Your task to perform on an android device: read, delete, or share a saved page in the chrome app Image 0: 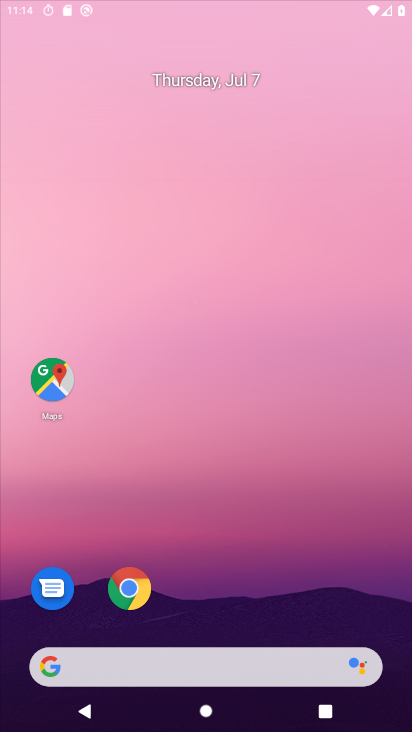
Step 0: press home button
Your task to perform on an android device: read, delete, or share a saved page in the chrome app Image 1: 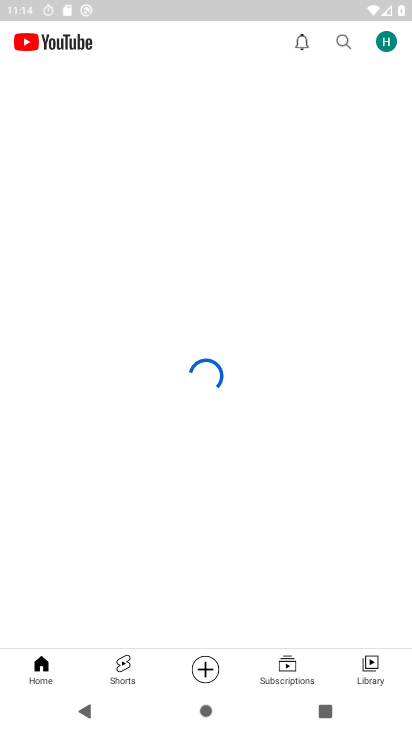
Step 1: click (129, 589)
Your task to perform on an android device: read, delete, or share a saved page in the chrome app Image 2: 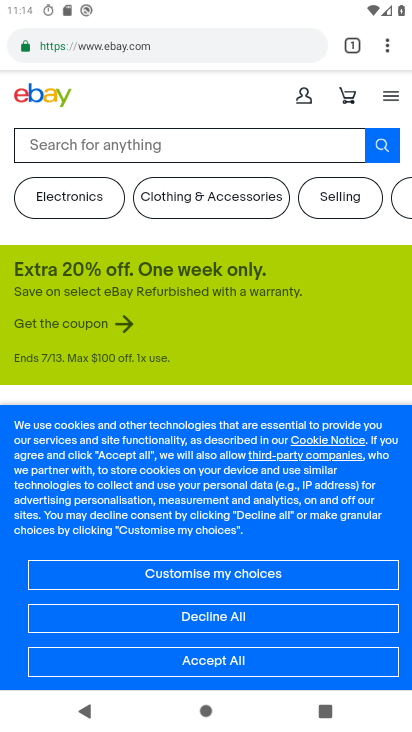
Step 2: press home button
Your task to perform on an android device: read, delete, or share a saved page in the chrome app Image 3: 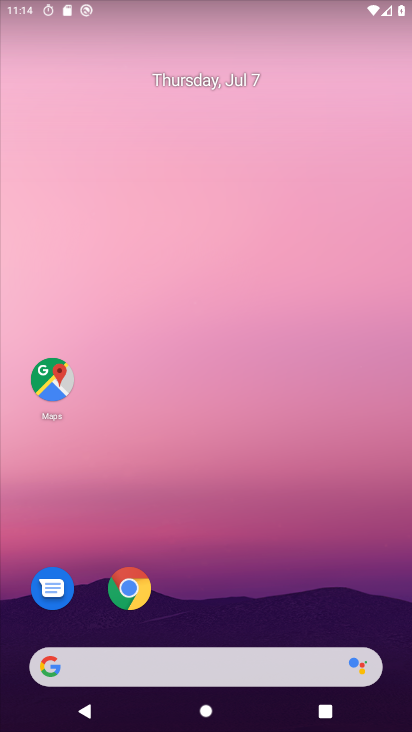
Step 3: click (129, 586)
Your task to perform on an android device: read, delete, or share a saved page in the chrome app Image 4: 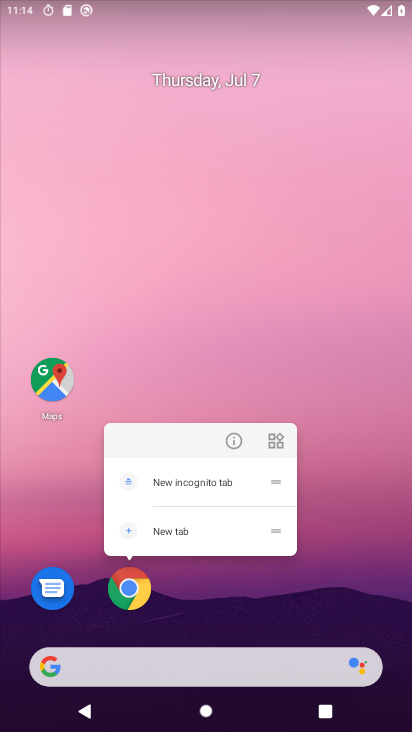
Step 4: click (135, 584)
Your task to perform on an android device: read, delete, or share a saved page in the chrome app Image 5: 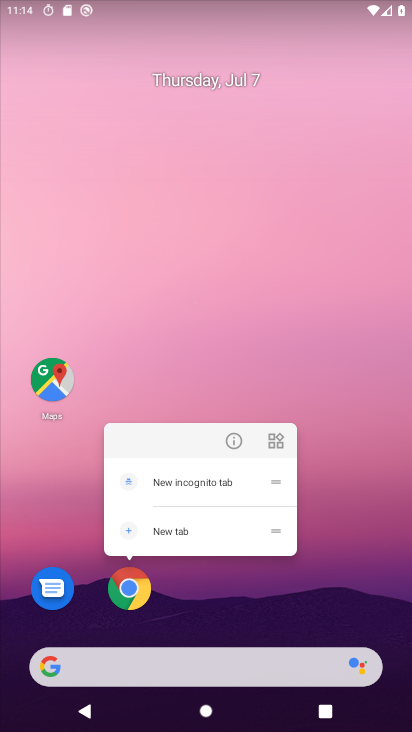
Step 5: click (132, 595)
Your task to perform on an android device: read, delete, or share a saved page in the chrome app Image 6: 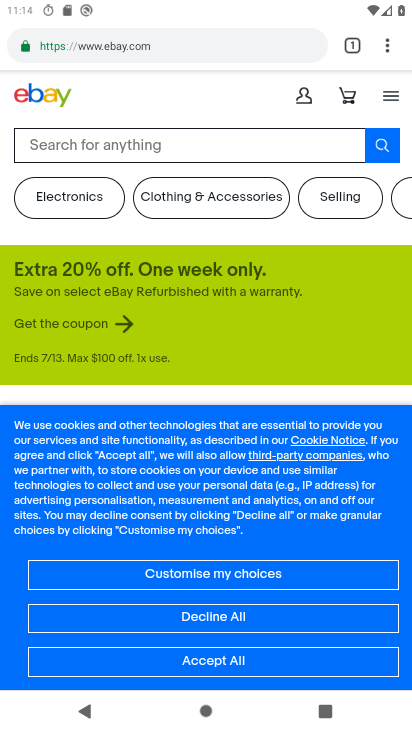
Step 6: drag from (387, 40) to (239, 305)
Your task to perform on an android device: read, delete, or share a saved page in the chrome app Image 7: 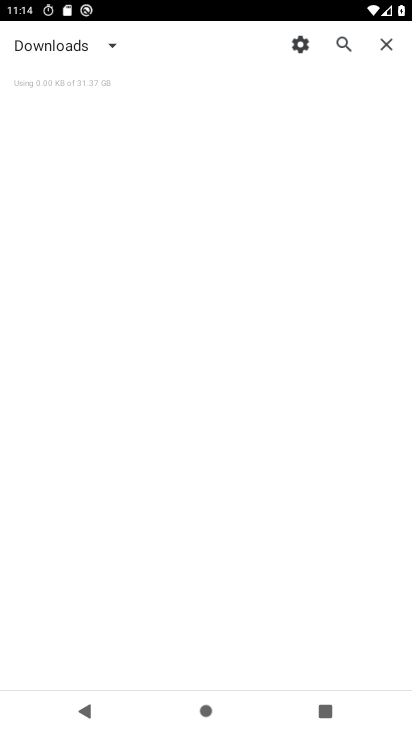
Step 7: click (83, 42)
Your task to perform on an android device: read, delete, or share a saved page in the chrome app Image 8: 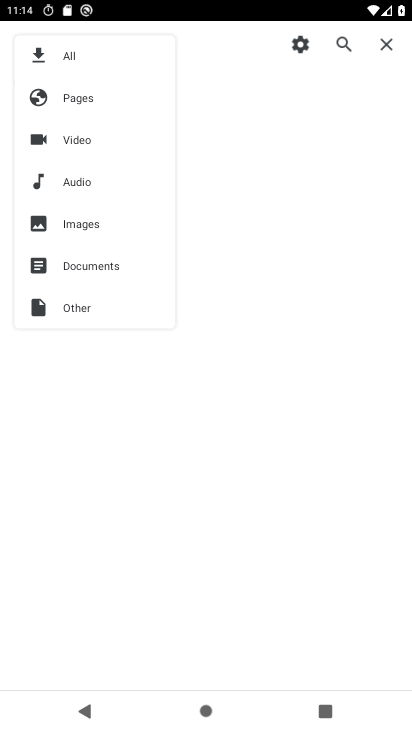
Step 8: click (78, 90)
Your task to perform on an android device: read, delete, or share a saved page in the chrome app Image 9: 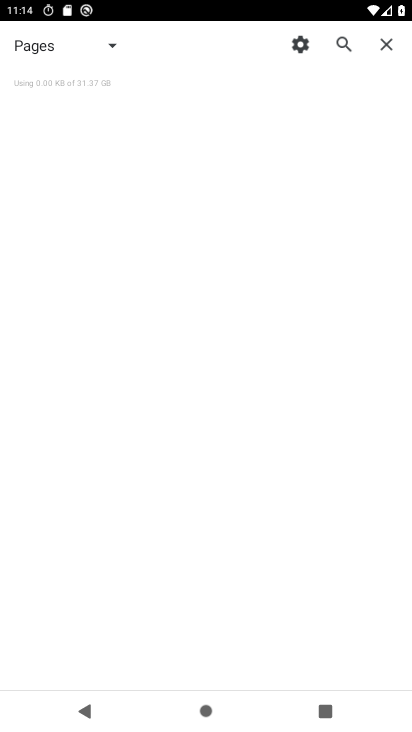
Step 9: task complete